Your task to perform on an android device: When is my next meeting? Image 0: 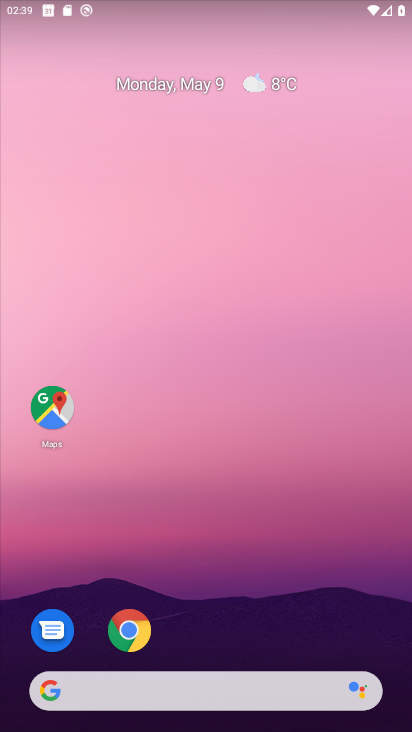
Step 0: drag from (260, 627) to (261, 265)
Your task to perform on an android device: When is my next meeting? Image 1: 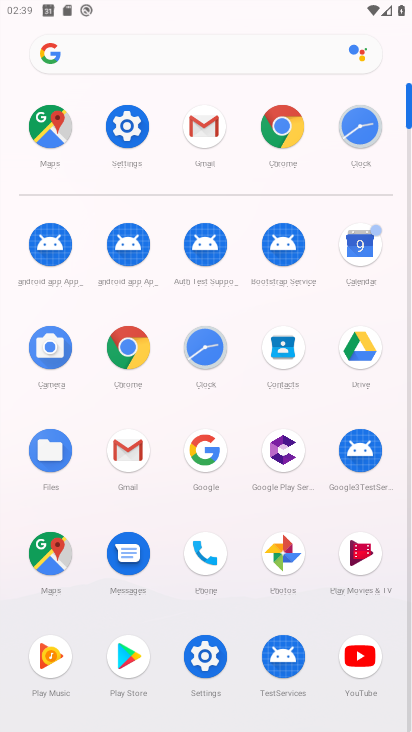
Step 1: click (362, 242)
Your task to perform on an android device: When is my next meeting? Image 2: 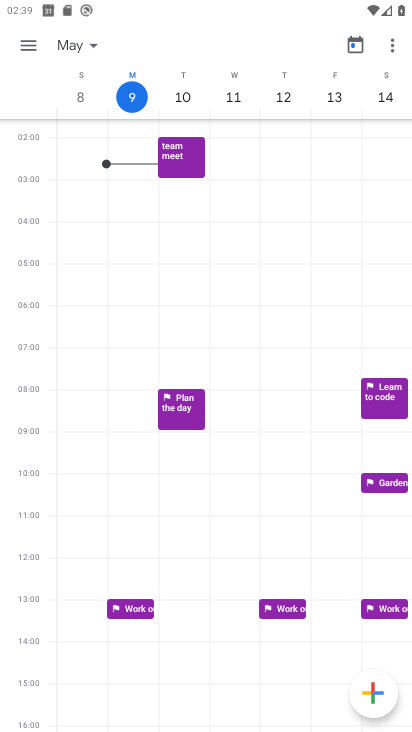
Step 2: click (24, 33)
Your task to perform on an android device: When is my next meeting? Image 3: 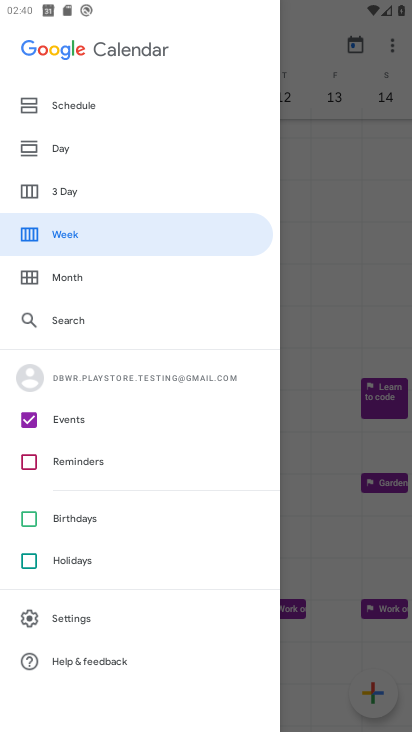
Step 3: click (149, 114)
Your task to perform on an android device: When is my next meeting? Image 4: 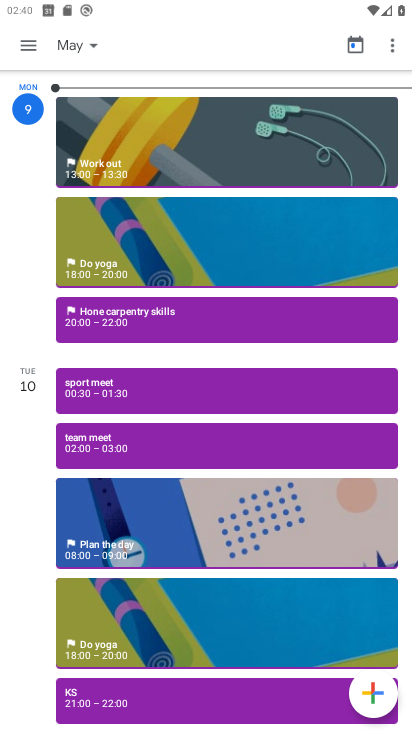
Step 4: click (148, 394)
Your task to perform on an android device: When is my next meeting? Image 5: 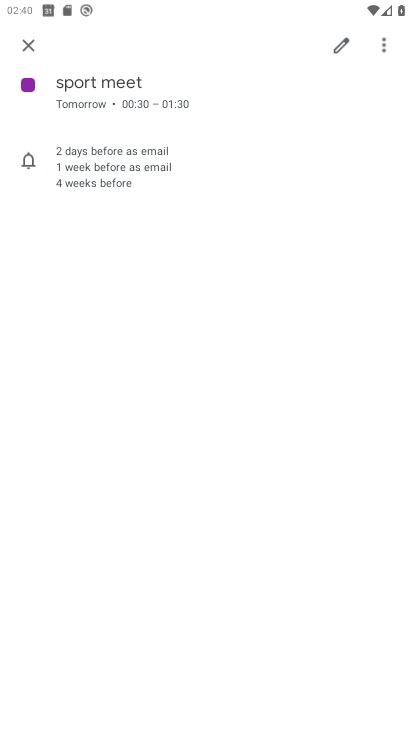
Step 5: task complete